Your task to perform on an android device: show emergency info Image 0: 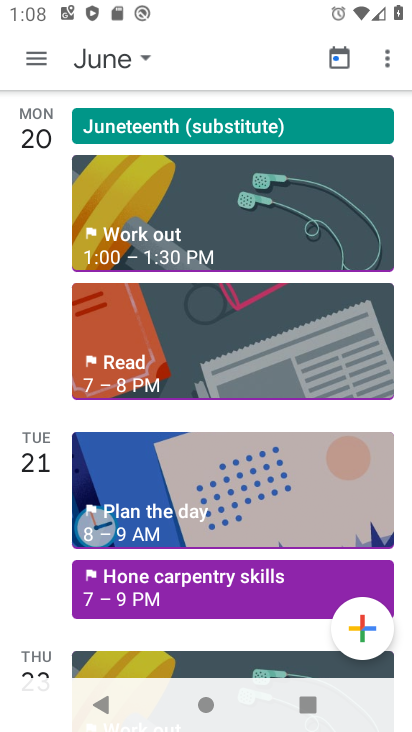
Step 0: press home button
Your task to perform on an android device: show emergency info Image 1: 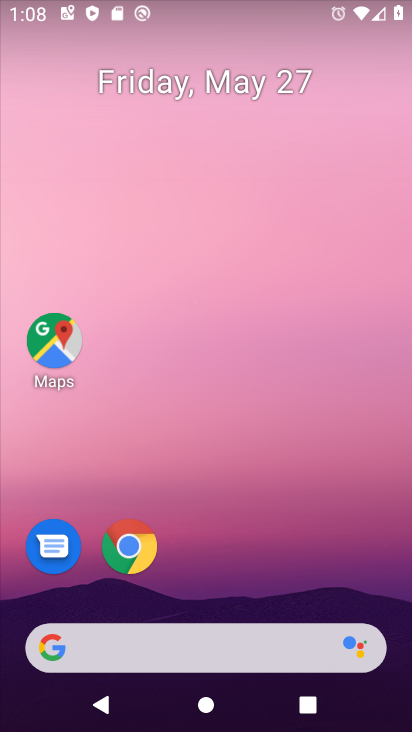
Step 1: drag from (268, 684) to (192, 194)
Your task to perform on an android device: show emergency info Image 2: 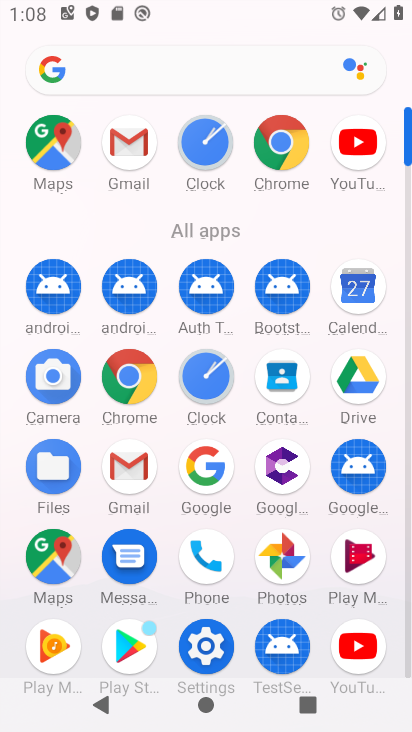
Step 2: click (207, 648)
Your task to perform on an android device: show emergency info Image 3: 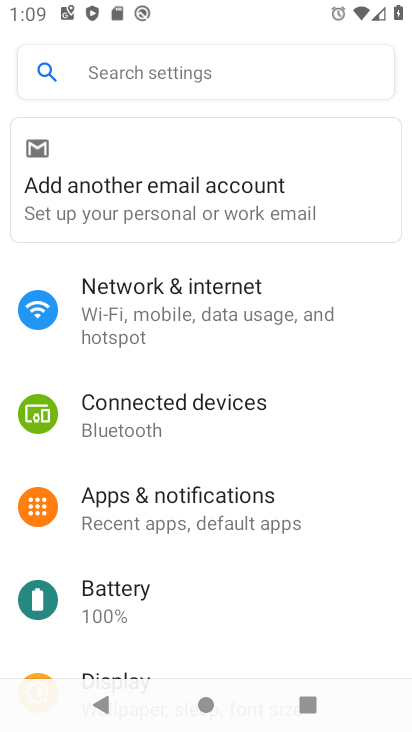
Step 3: click (120, 64)
Your task to perform on an android device: show emergency info Image 4: 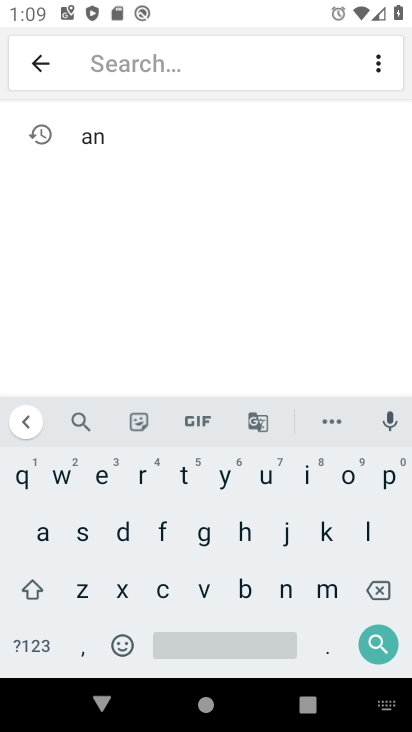
Step 4: click (95, 470)
Your task to perform on an android device: show emergency info Image 5: 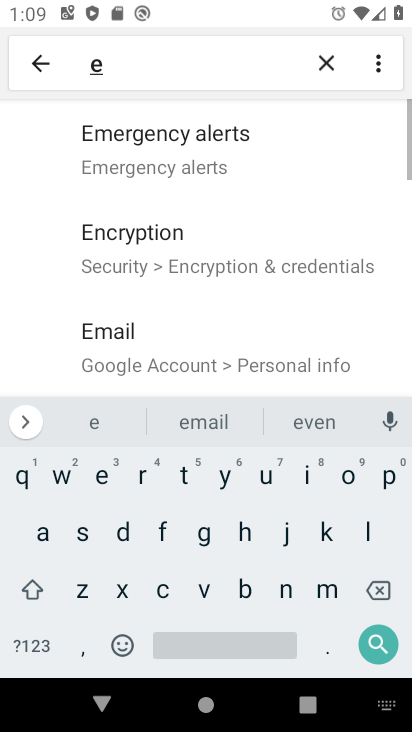
Step 5: click (326, 594)
Your task to perform on an android device: show emergency info Image 6: 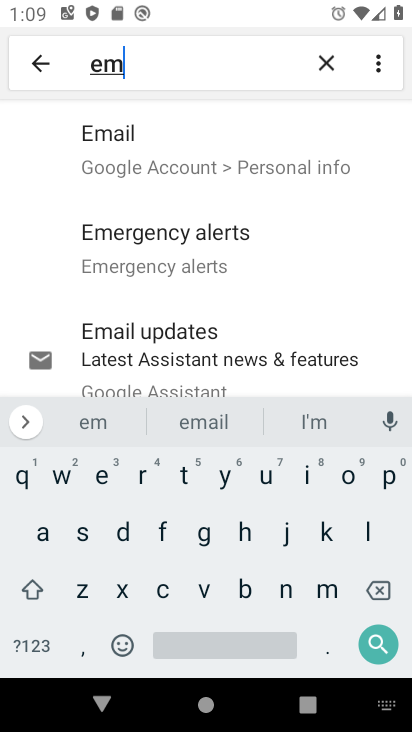
Step 6: click (104, 470)
Your task to perform on an android device: show emergency info Image 7: 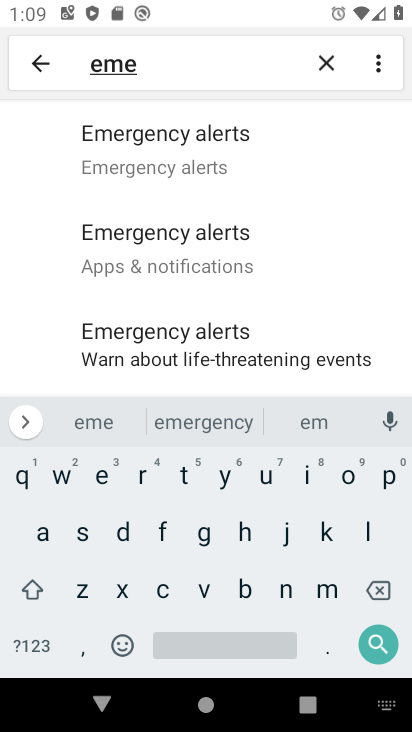
Step 7: click (195, 435)
Your task to perform on an android device: show emergency info Image 8: 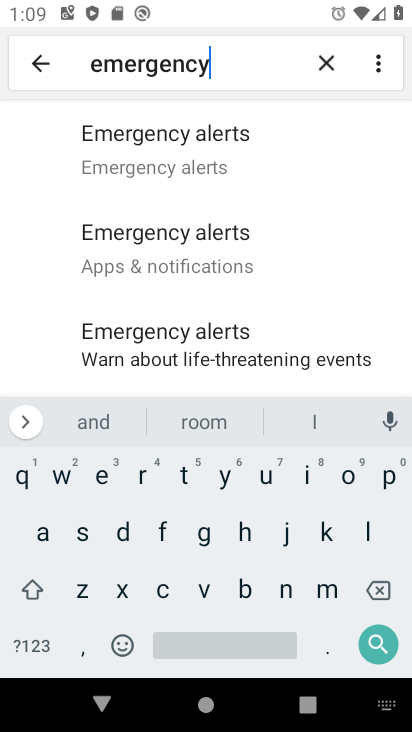
Step 8: click (303, 475)
Your task to perform on an android device: show emergency info Image 9: 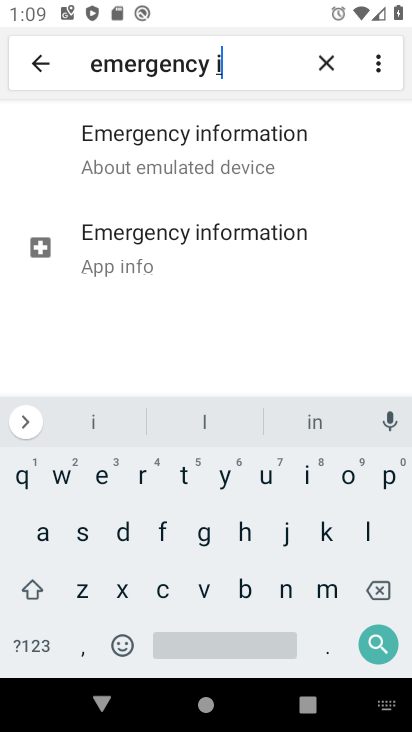
Step 9: click (253, 159)
Your task to perform on an android device: show emergency info Image 10: 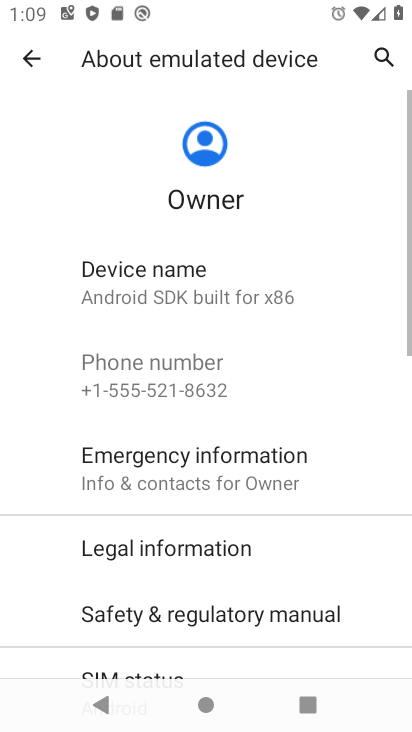
Step 10: click (247, 453)
Your task to perform on an android device: show emergency info Image 11: 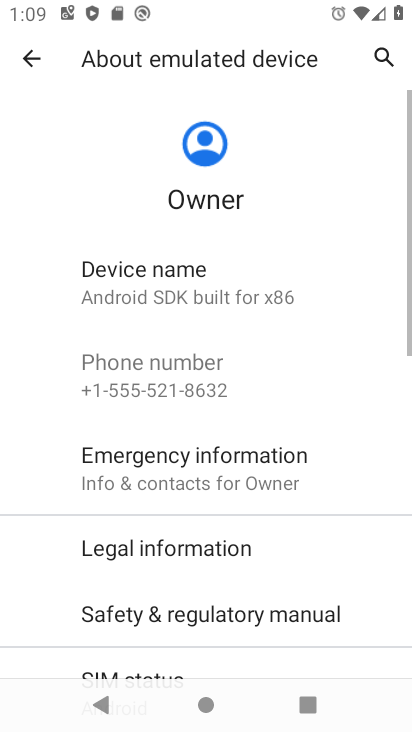
Step 11: task complete